Your task to perform on an android device: find photos in the google photos app Image 0: 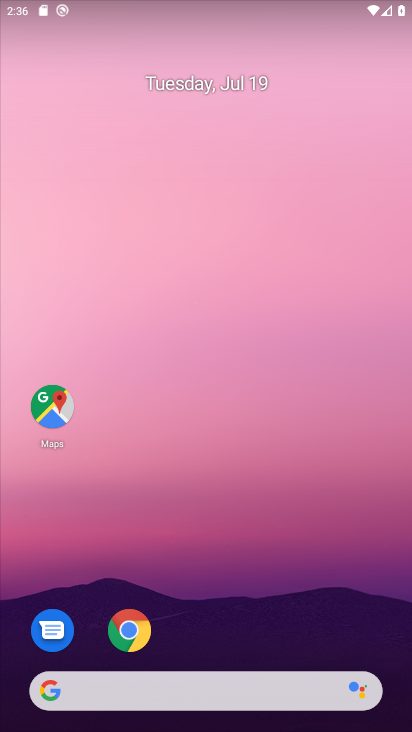
Step 0: drag from (277, 608) to (205, 214)
Your task to perform on an android device: find photos in the google photos app Image 1: 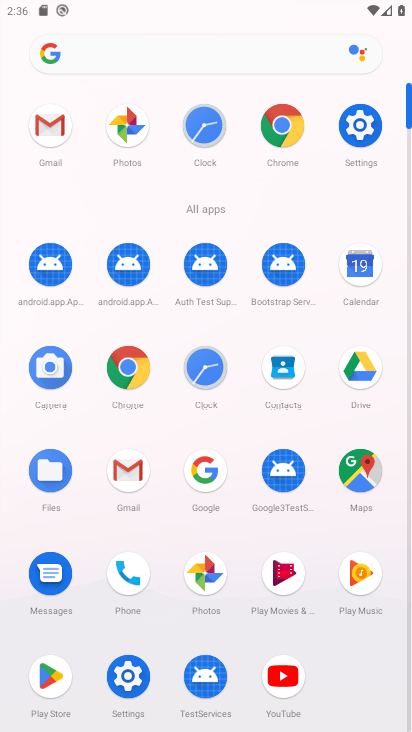
Step 1: click (123, 116)
Your task to perform on an android device: find photos in the google photos app Image 2: 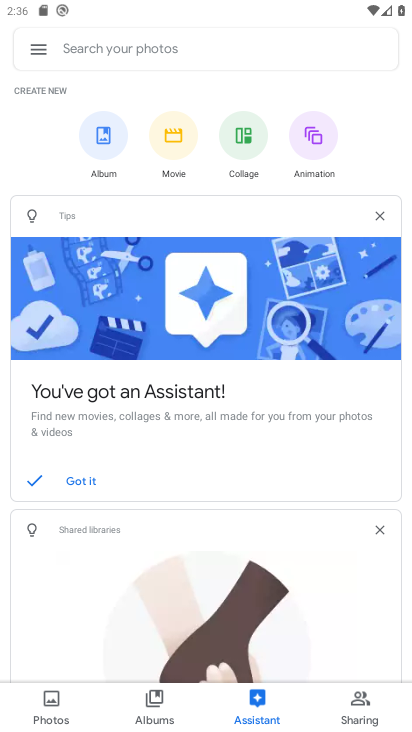
Step 2: click (88, 38)
Your task to perform on an android device: find photos in the google photos app Image 3: 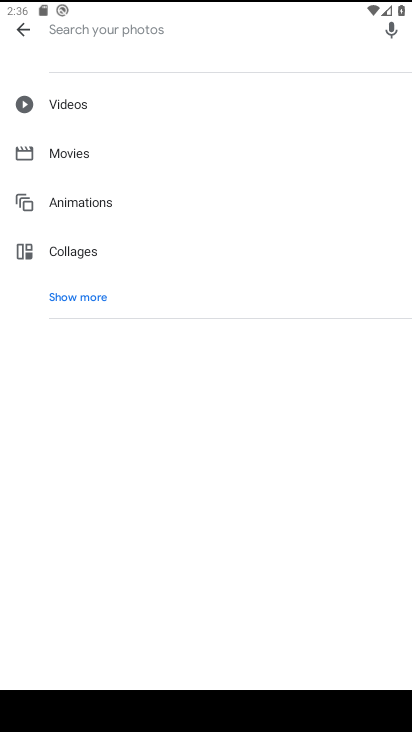
Step 3: task complete